Your task to perform on an android device: Go to settings Image 0: 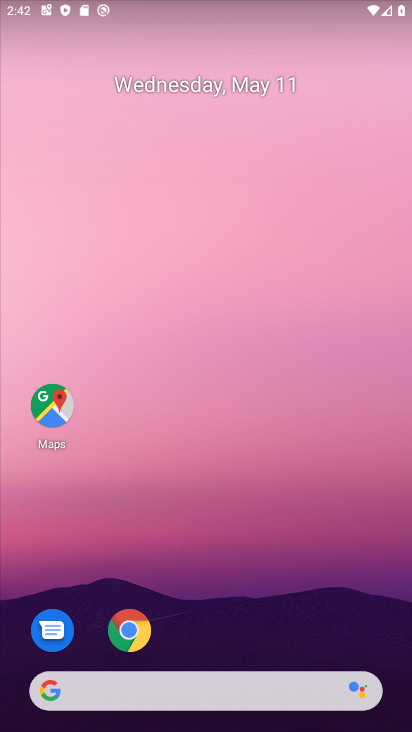
Step 0: drag from (321, 652) to (355, 127)
Your task to perform on an android device: Go to settings Image 1: 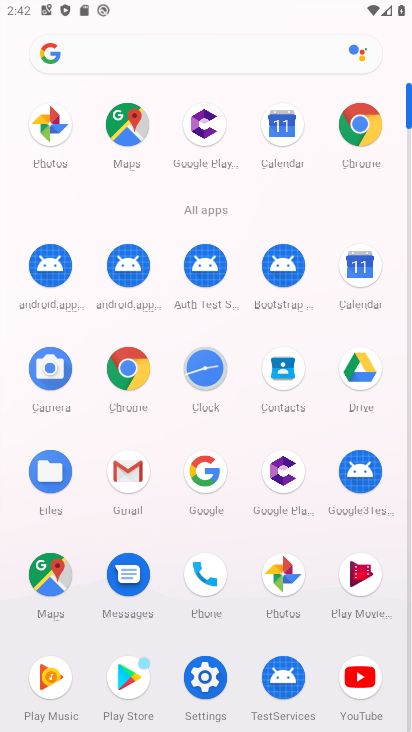
Step 1: click (195, 680)
Your task to perform on an android device: Go to settings Image 2: 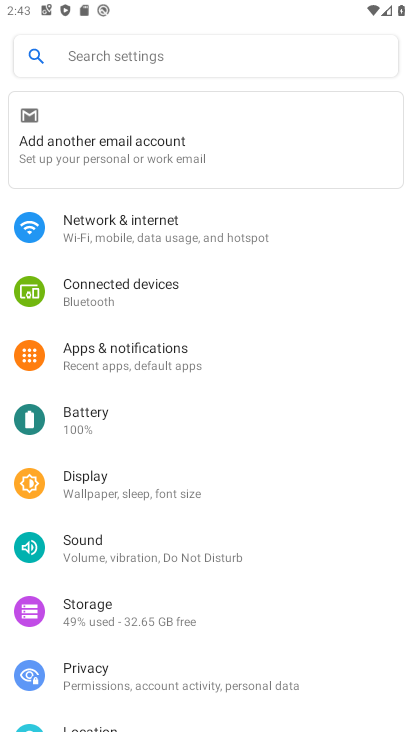
Step 2: task complete